Your task to perform on an android device: Do I have any events tomorrow? Image 0: 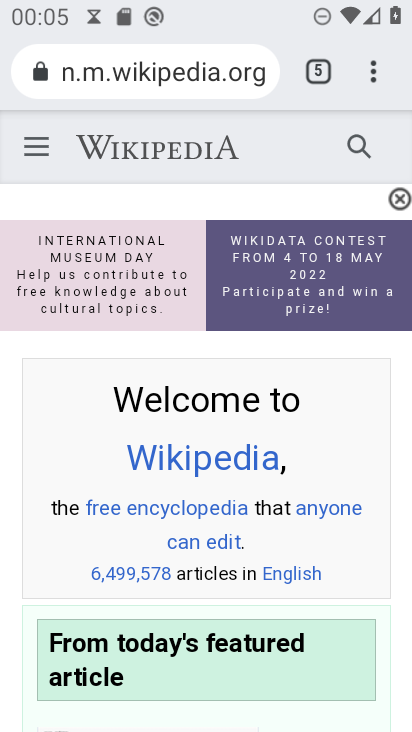
Step 0: press home button
Your task to perform on an android device: Do I have any events tomorrow? Image 1: 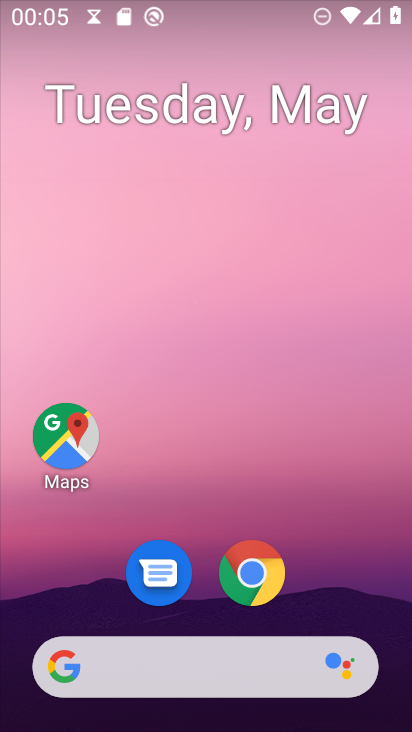
Step 1: drag from (308, 403) to (237, 55)
Your task to perform on an android device: Do I have any events tomorrow? Image 2: 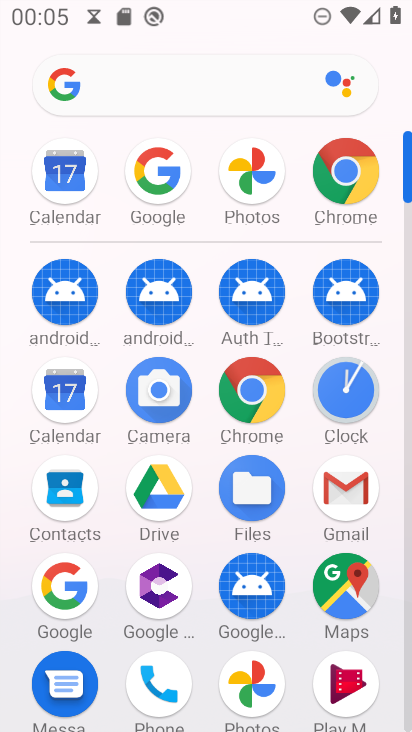
Step 2: click (75, 402)
Your task to perform on an android device: Do I have any events tomorrow? Image 3: 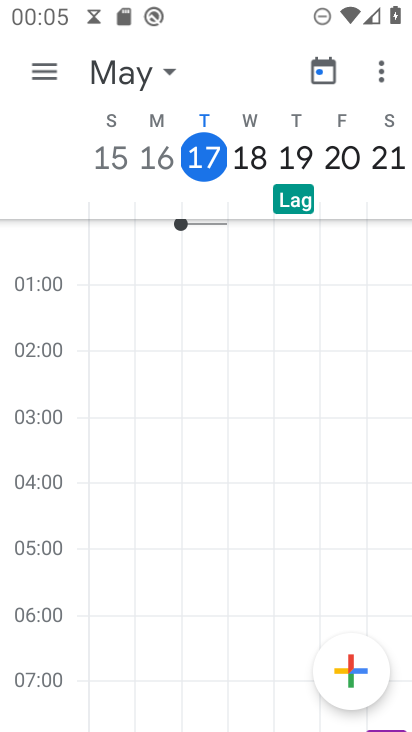
Step 3: task complete